Your task to perform on an android device: Open CNN.com Image 0: 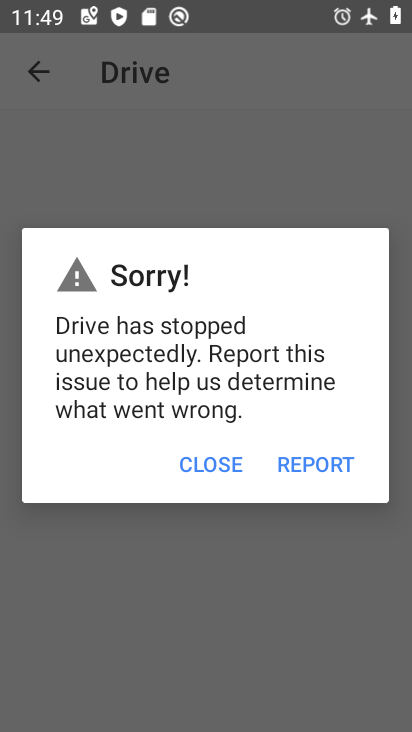
Step 0: press home button
Your task to perform on an android device: Open CNN.com Image 1: 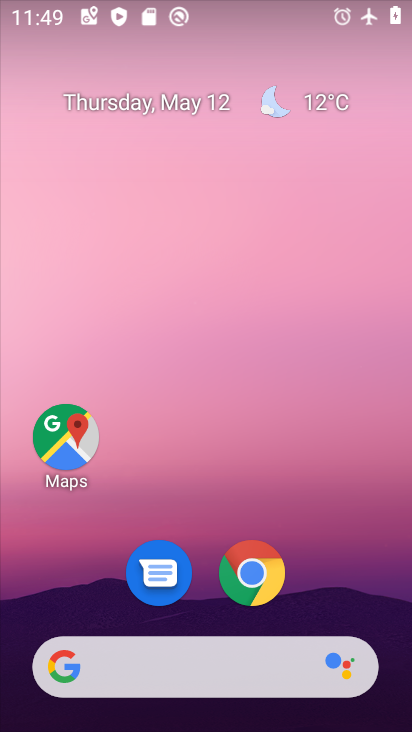
Step 1: click (270, 666)
Your task to perform on an android device: Open CNN.com Image 2: 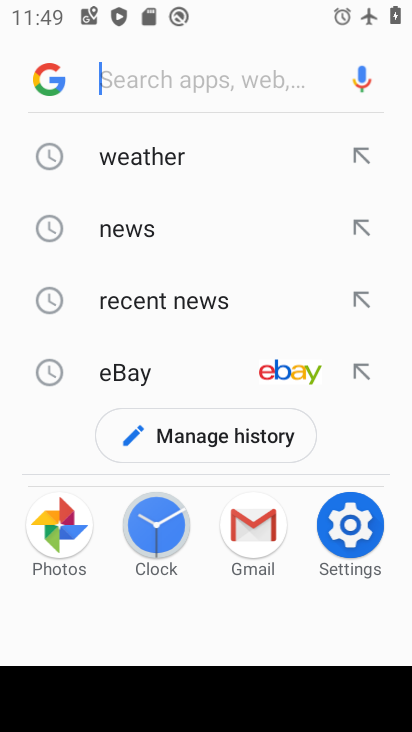
Step 2: type "cnn.com"
Your task to perform on an android device: Open CNN.com Image 3: 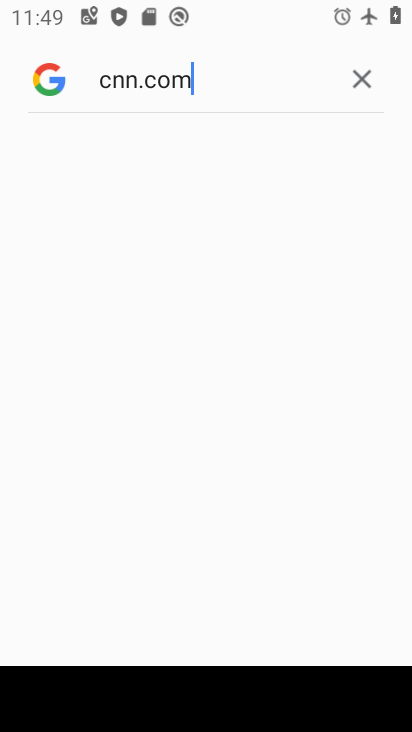
Step 3: task complete